Your task to perform on an android device: Is it going to rain this weekend? Image 0: 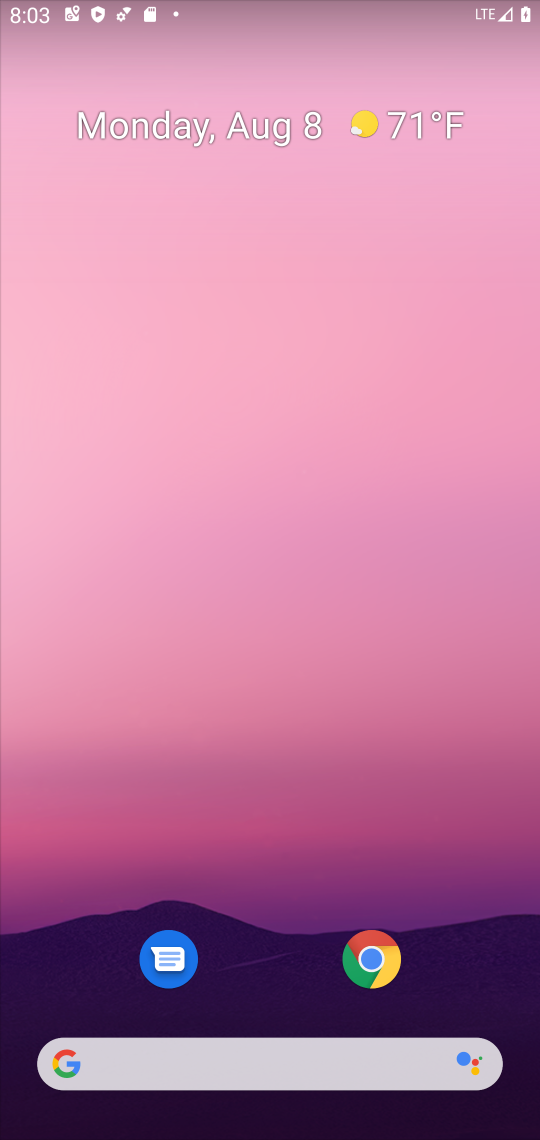
Step 0: drag from (491, 966) to (266, 33)
Your task to perform on an android device: Is it going to rain this weekend? Image 1: 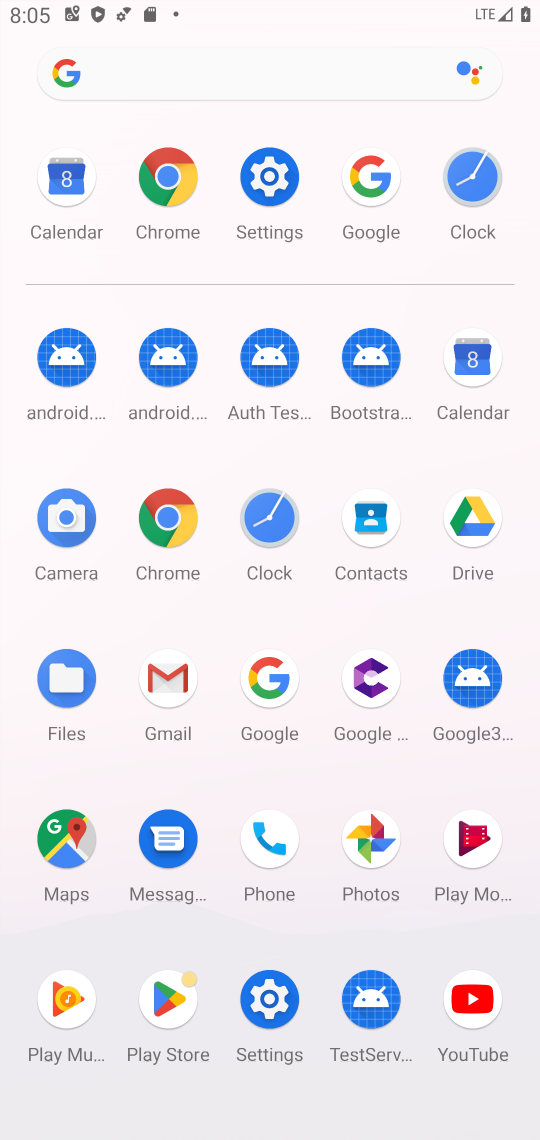
Step 1: click (277, 692)
Your task to perform on an android device: Is it going to rain this weekend? Image 2: 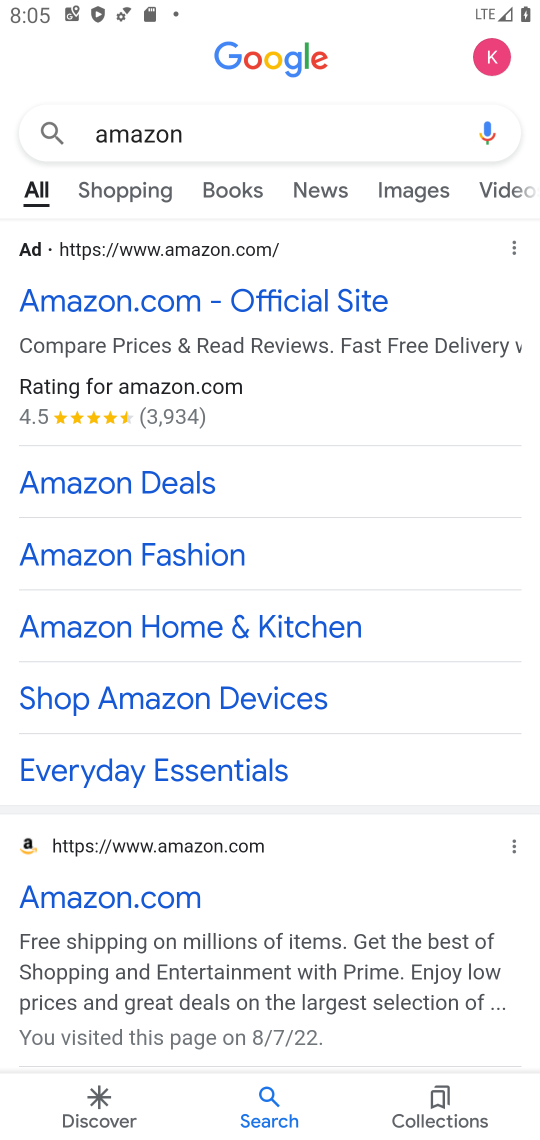
Step 2: press back button
Your task to perform on an android device: Is it going to rain this weekend? Image 3: 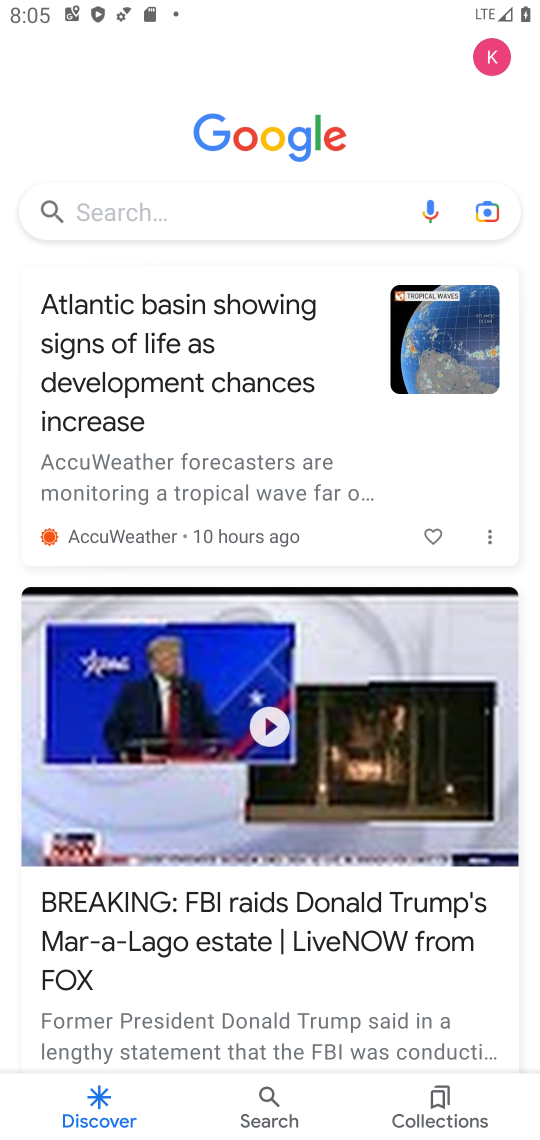
Step 3: click (143, 207)
Your task to perform on an android device: Is it going to rain this weekend? Image 4: 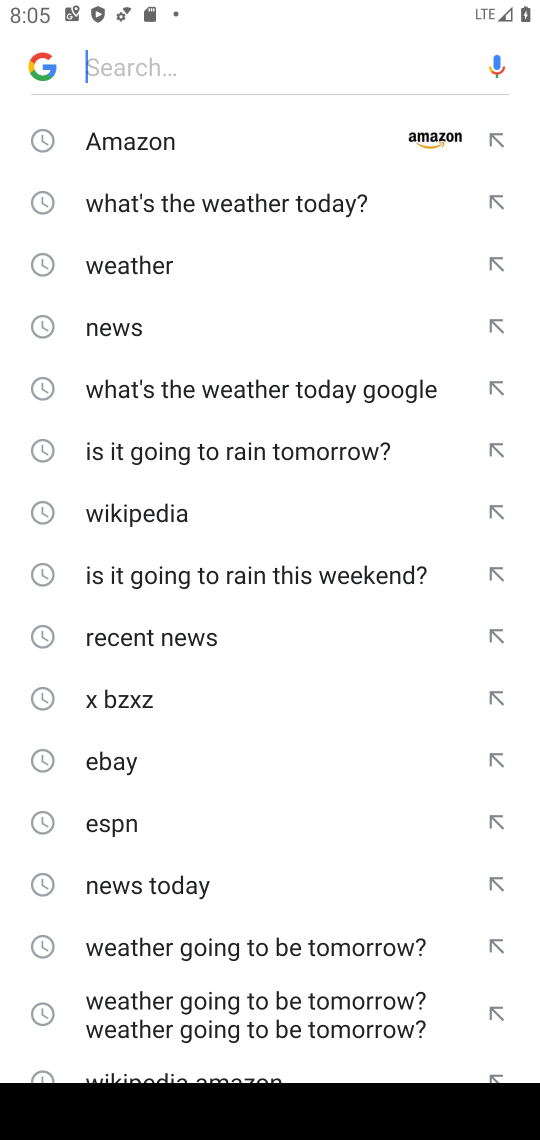
Step 4: click (212, 575)
Your task to perform on an android device: Is it going to rain this weekend? Image 5: 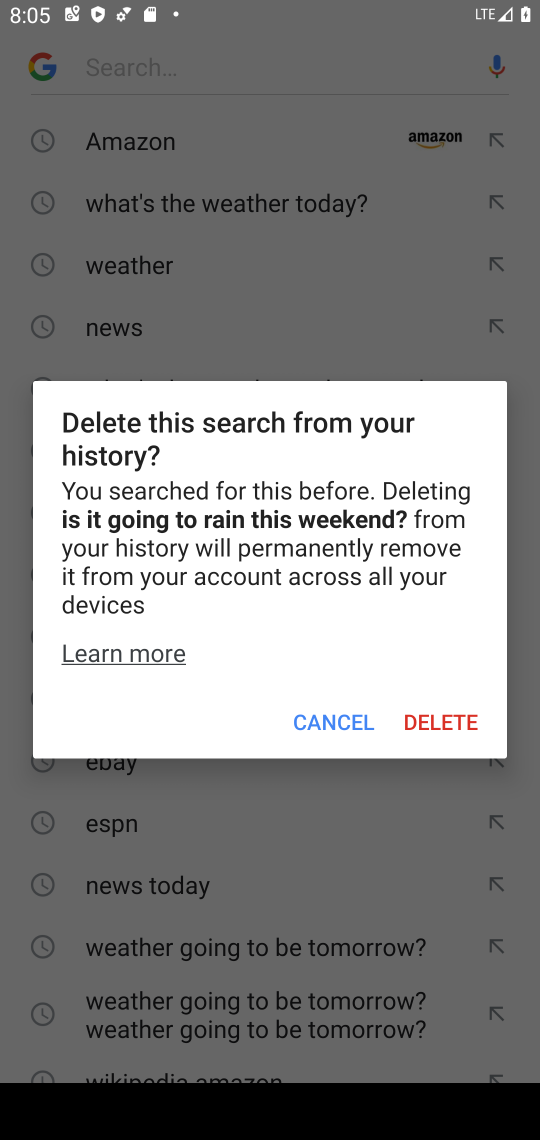
Step 5: click (330, 718)
Your task to perform on an android device: Is it going to rain this weekend? Image 6: 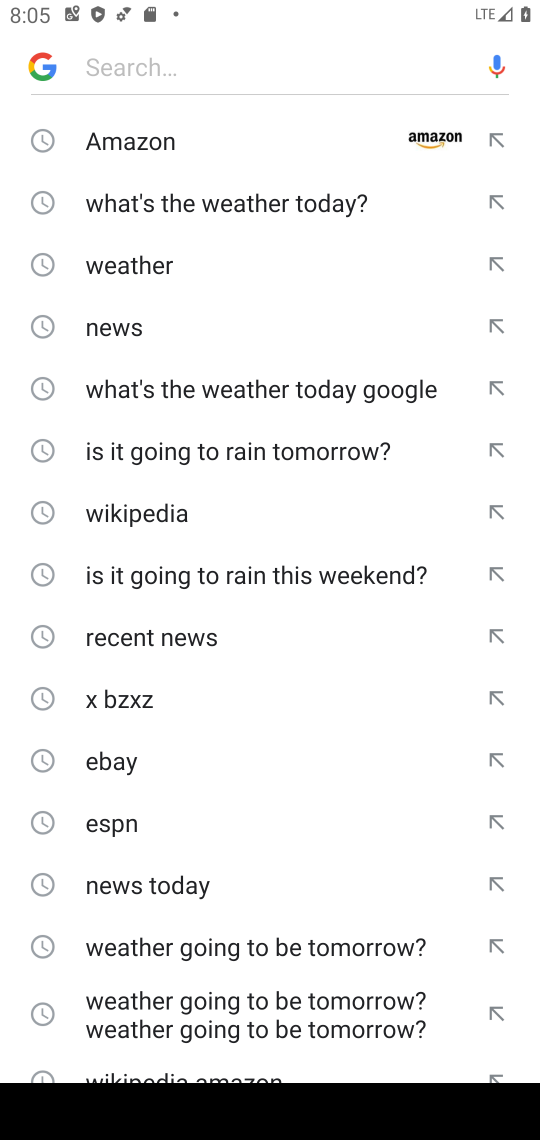
Step 6: click (296, 586)
Your task to perform on an android device: Is it going to rain this weekend? Image 7: 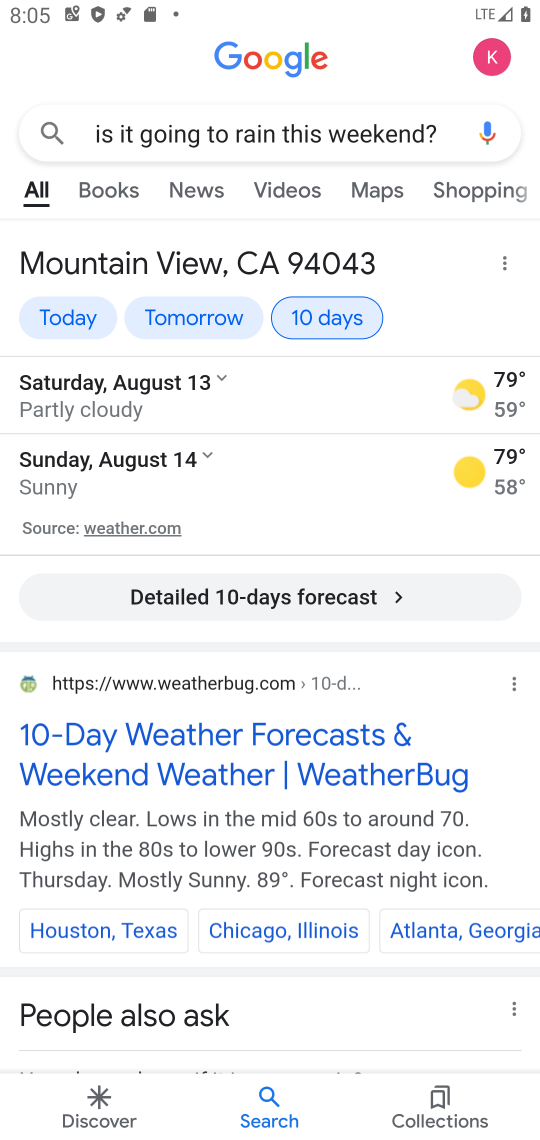
Step 7: task complete